Your task to perform on an android device: Go to Wikipedia Image 0: 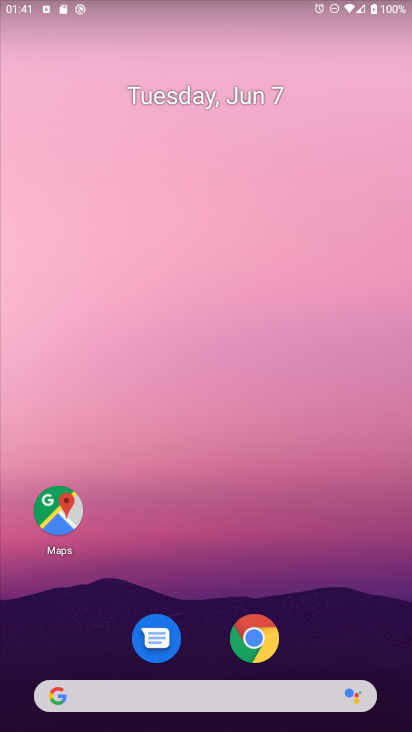
Step 0: drag from (296, 704) to (227, 192)
Your task to perform on an android device: Go to Wikipedia Image 1: 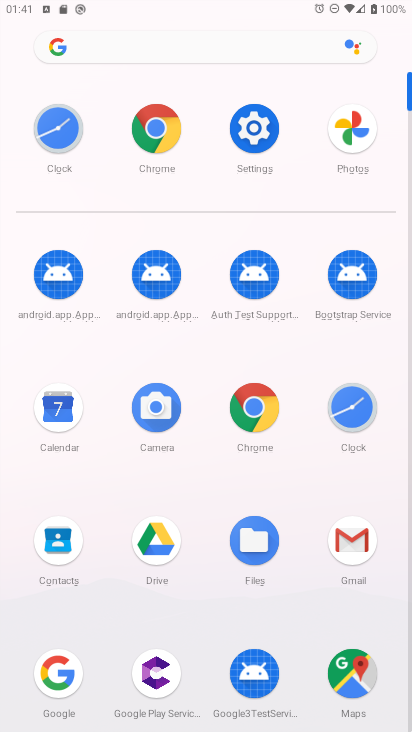
Step 1: click (169, 144)
Your task to perform on an android device: Go to Wikipedia Image 2: 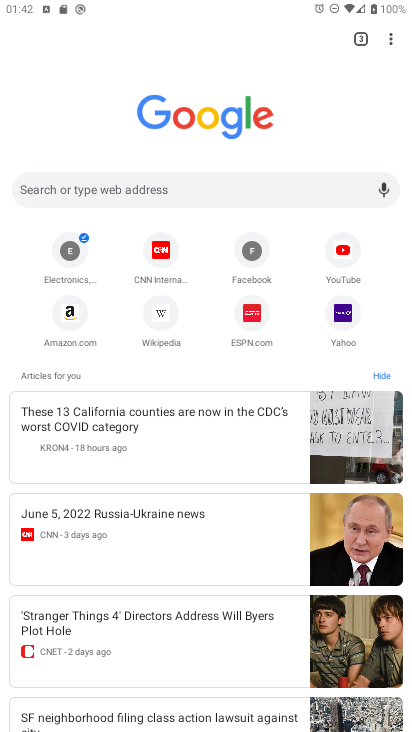
Step 2: click (156, 321)
Your task to perform on an android device: Go to Wikipedia Image 3: 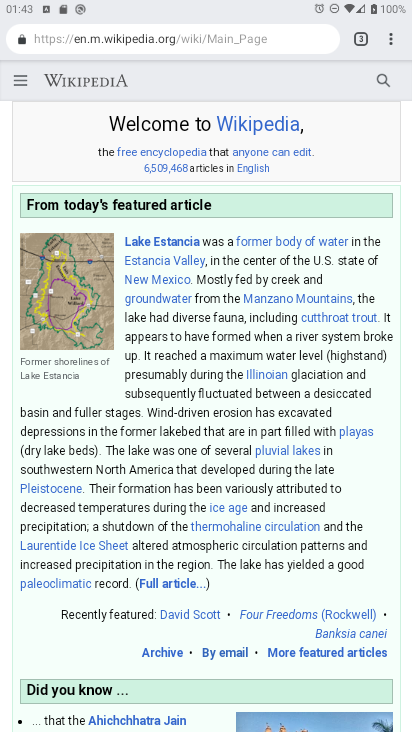
Step 3: task complete